Your task to perform on an android device: Do I have any events this weekend? Image 0: 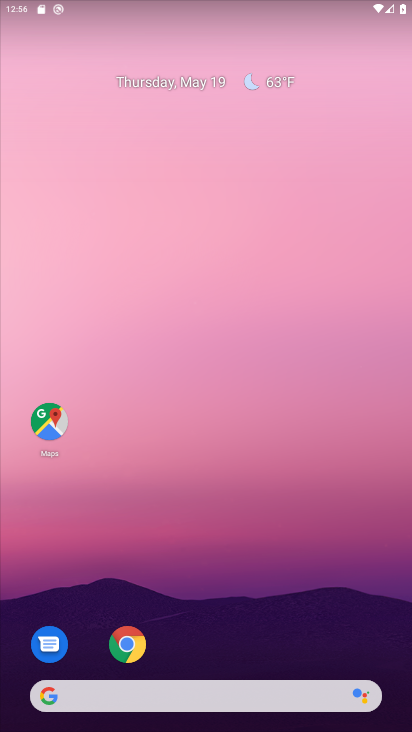
Step 0: drag from (221, 591) to (324, 277)
Your task to perform on an android device: Do I have any events this weekend? Image 1: 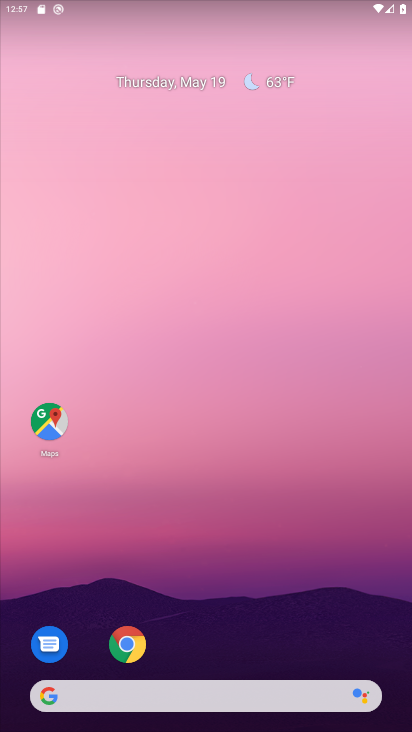
Step 1: drag from (269, 484) to (311, 146)
Your task to perform on an android device: Do I have any events this weekend? Image 2: 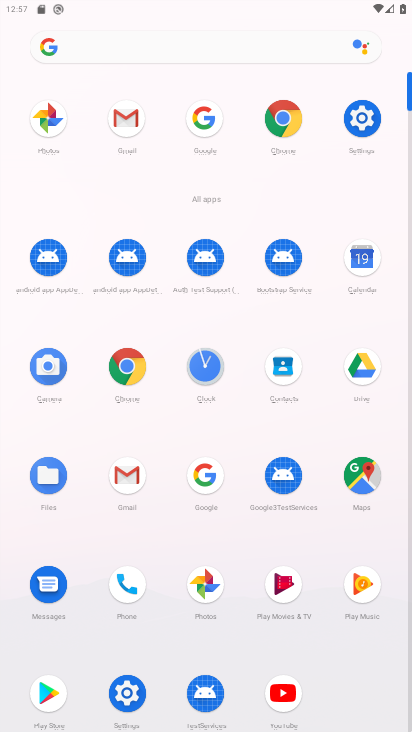
Step 2: click (364, 259)
Your task to perform on an android device: Do I have any events this weekend? Image 3: 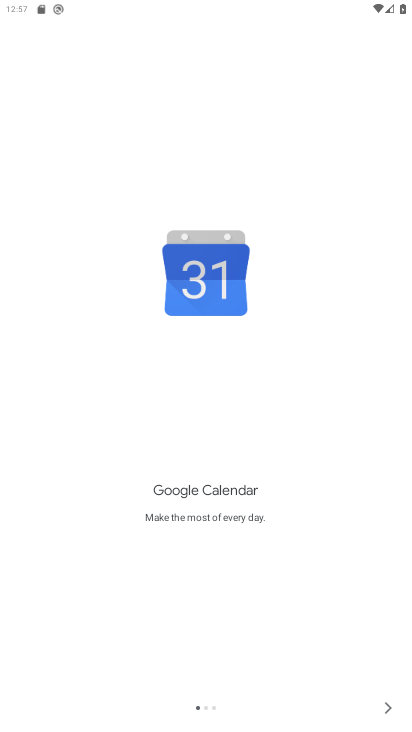
Step 3: click (396, 712)
Your task to perform on an android device: Do I have any events this weekend? Image 4: 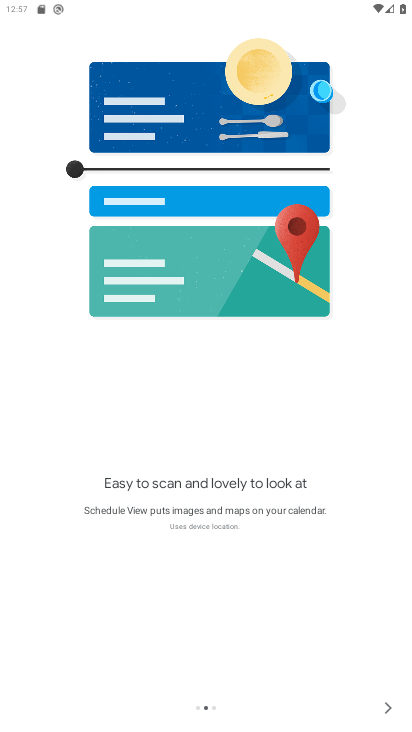
Step 4: click (384, 697)
Your task to perform on an android device: Do I have any events this weekend? Image 5: 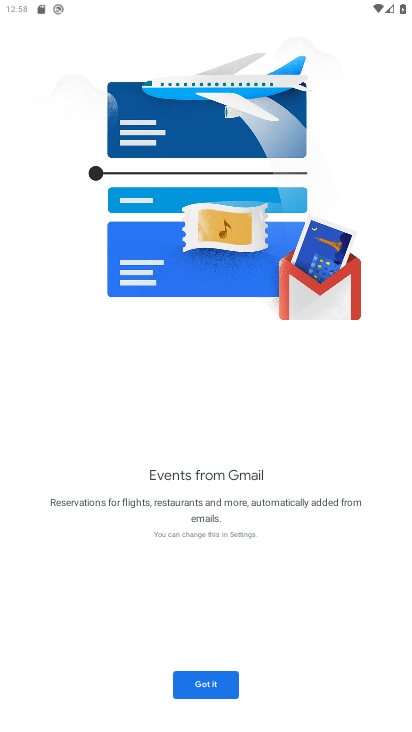
Step 5: click (223, 682)
Your task to perform on an android device: Do I have any events this weekend? Image 6: 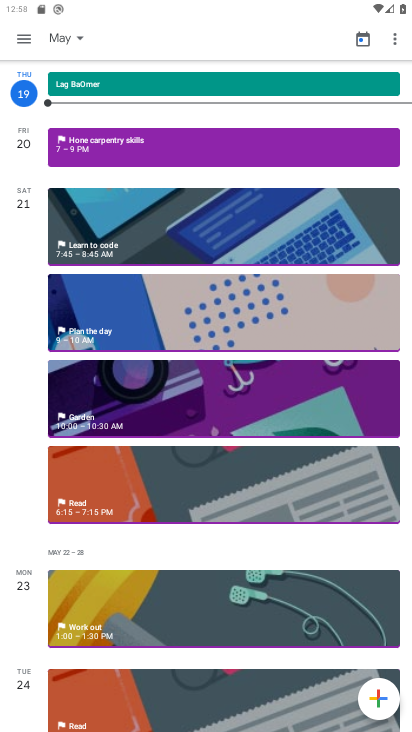
Step 6: click (78, 45)
Your task to perform on an android device: Do I have any events this weekend? Image 7: 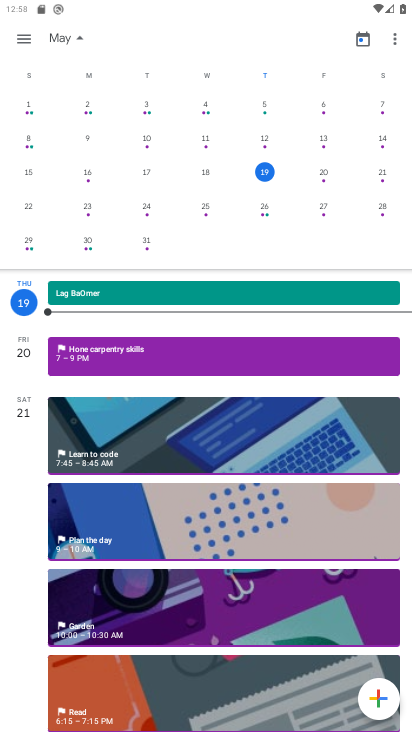
Step 7: click (381, 175)
Your task to perform on an android device: Do I have any events this weekend? Image 8: 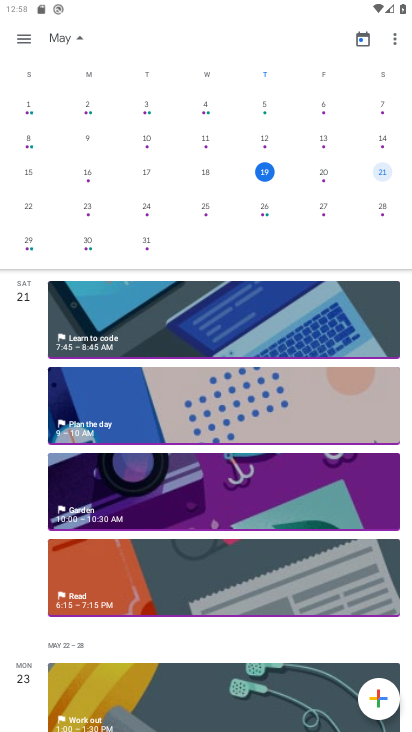
Step 8: click (28, 202)
Your task to perform on an android device: Do I have any events this weekend? Image 9: 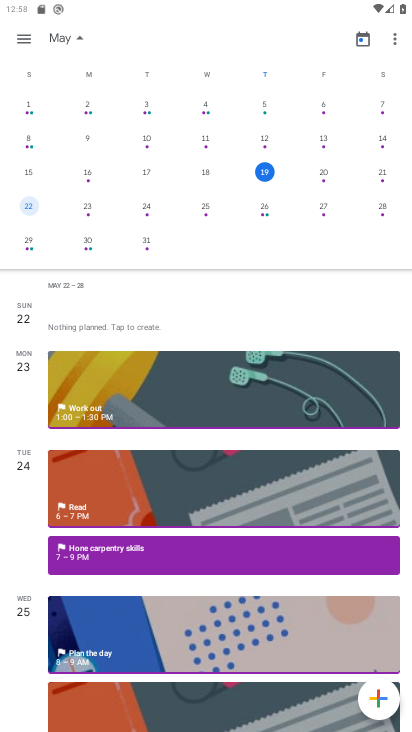
Step 9: task complete